Your task to perform on an android device: Go to battery settings Image 0: 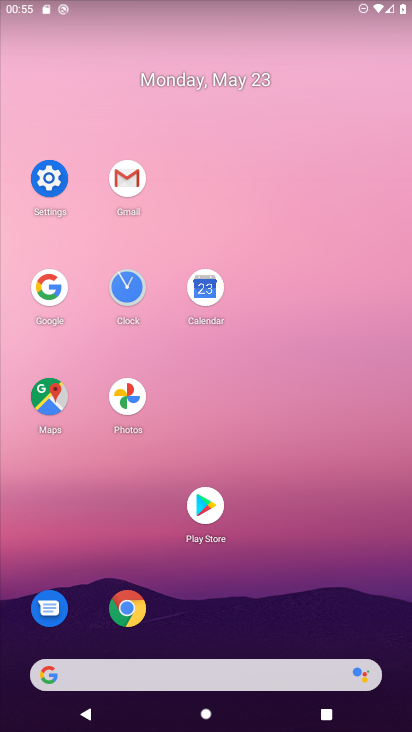
Step 0: click (58, 178)
Your task to perform on an android device: Go to battery settings Image 1: 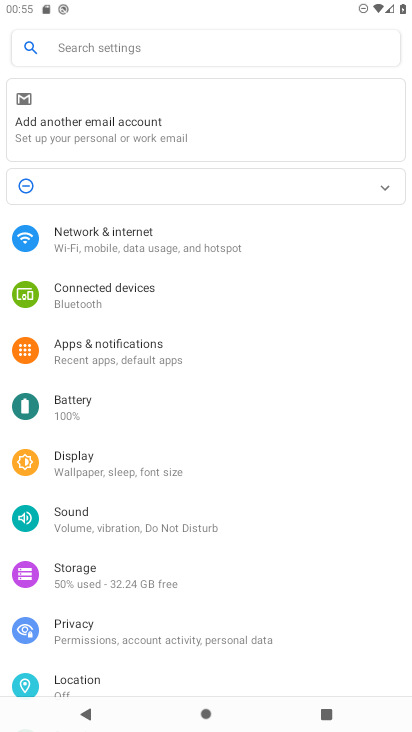
Step 1: click (127, 412)
Your task to perform on an android device: Go to battery settings Image 2: 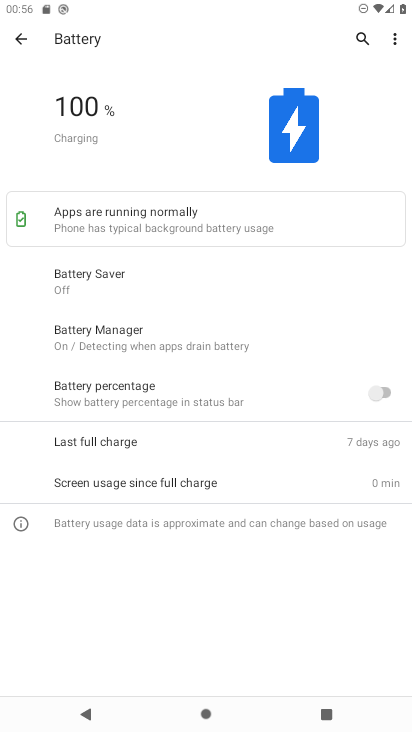
Step 2: task complete